Your task to perform on an android device: change the clock display to show seconds Image 0: 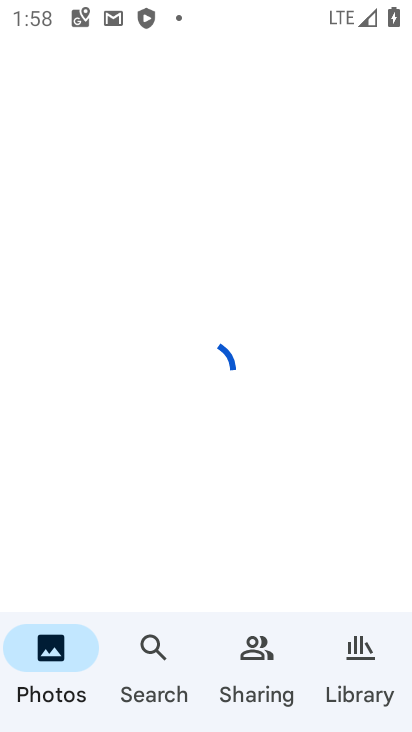
Step 0: drag from (256, 655) to (342, 44)
Your task to perform on an android device: change the clock display to show seconds Image 1: 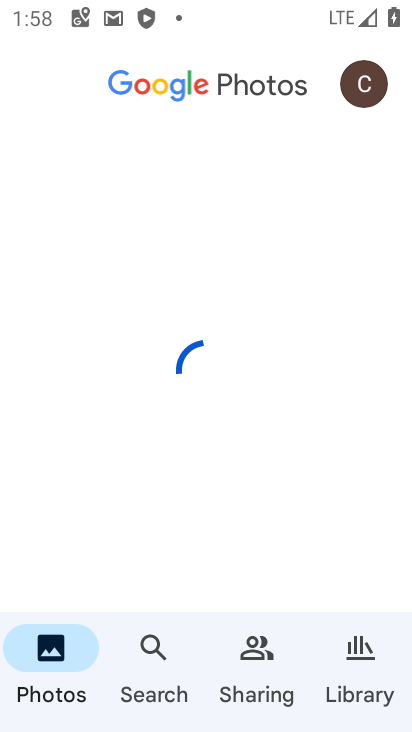
Step 1: press home button
Your task to perform on an android device: change the clock display to show seconds Image 2: 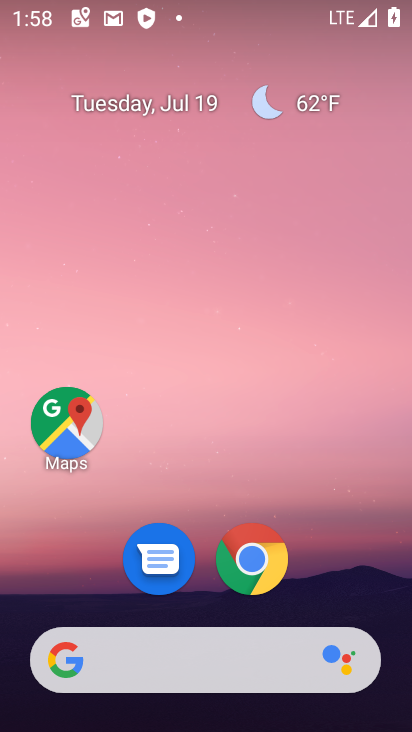
Step 2: drag from (227, 642) to (325, 155)
Your task to perform on an android device: change the clock display to show seconds Image 3: 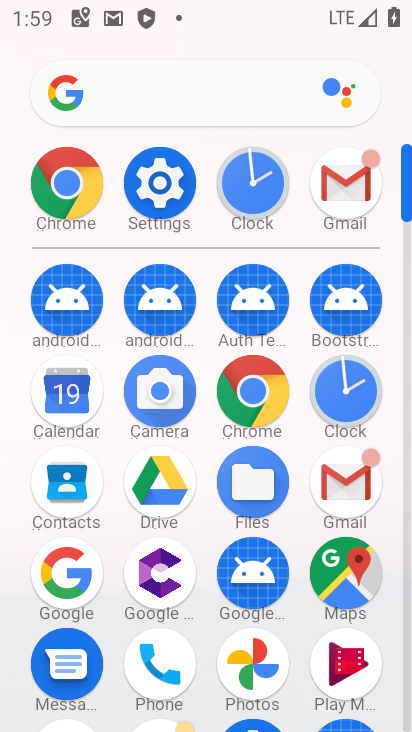
Step 3: click (316, 418)
Your task to perform on an android device: change the clock display to show seconds Image 4: 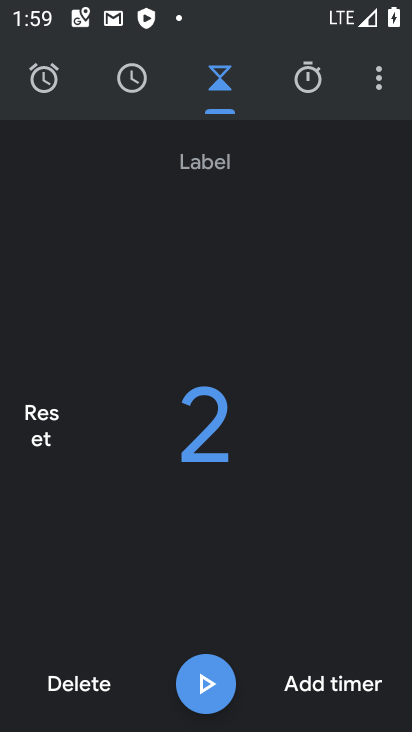
Step 4: click (384, 85)
Your task to perform on an android device: change the clock display to show seconds Image 5: 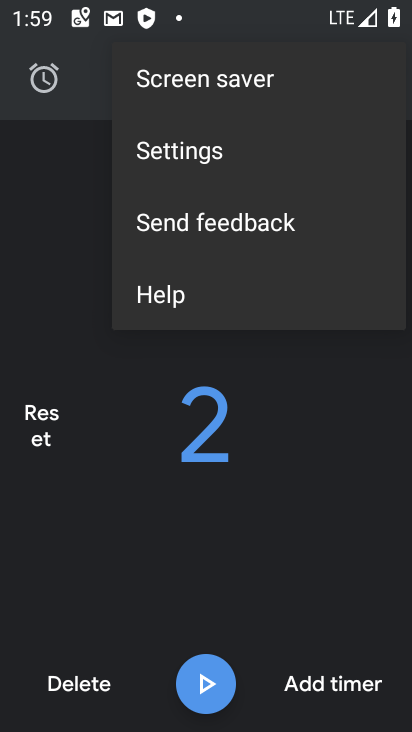
Step 5: click (206, 156)
Your task to perform on an android device: change the clock display to show seconds Image 6: 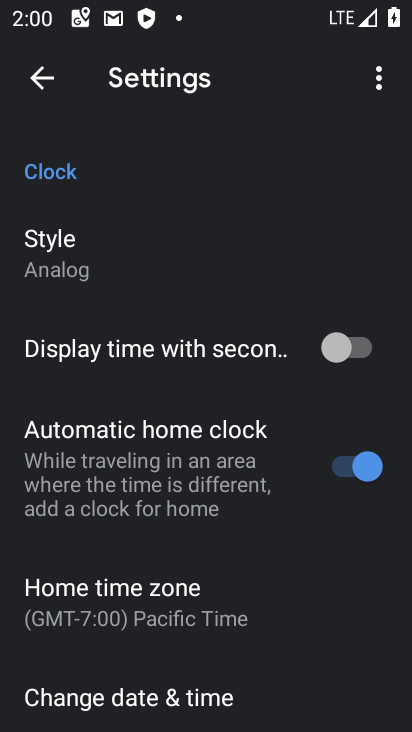
Step 6: click (366, 348)
Your task to perform on an android device: change the clock display to show seconds Image 7: 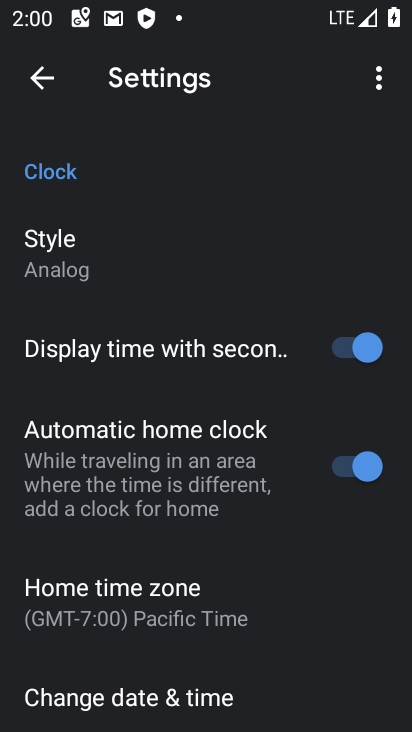
Step 7: task complete